Your task to perform on an android device: set the timer Image 0: 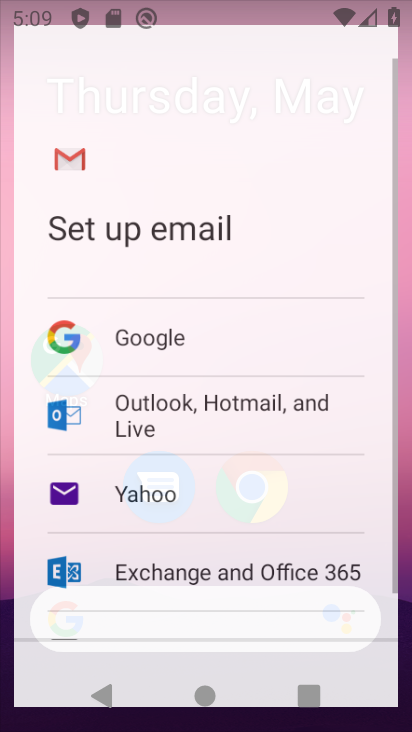
Step 0: drag from (318, 510) to (318, 252)
Your task to perform on an android device: set the timer Image 1: 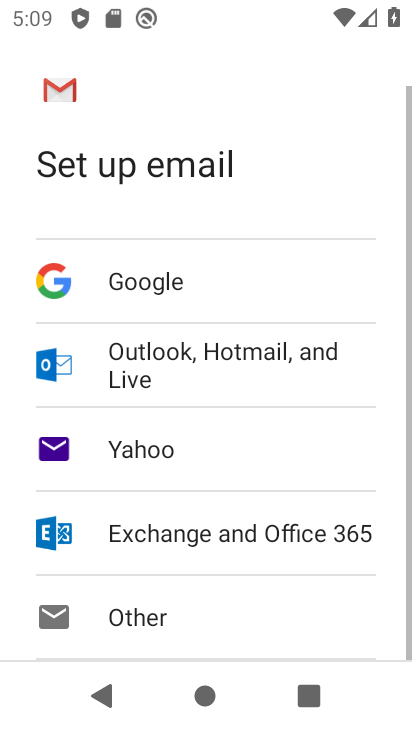
Step 1: press home button
Your task to perform on an android device: set the timer Image 2: 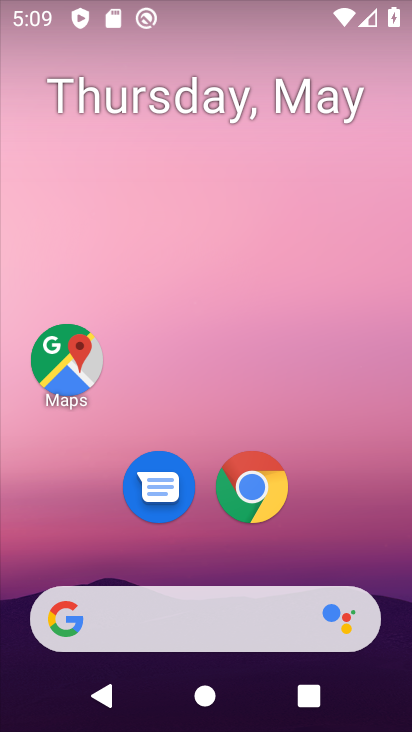
Step 2: drag from (324, 513) to (297, 47)
Your task to perform on an android device: set the timer Image 3: 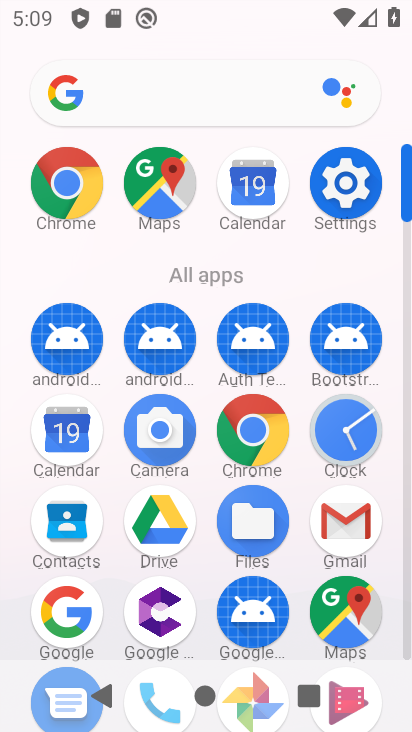
Step 3: click (350, 430)
Your task to perform on an android device: set the timer Image 4: 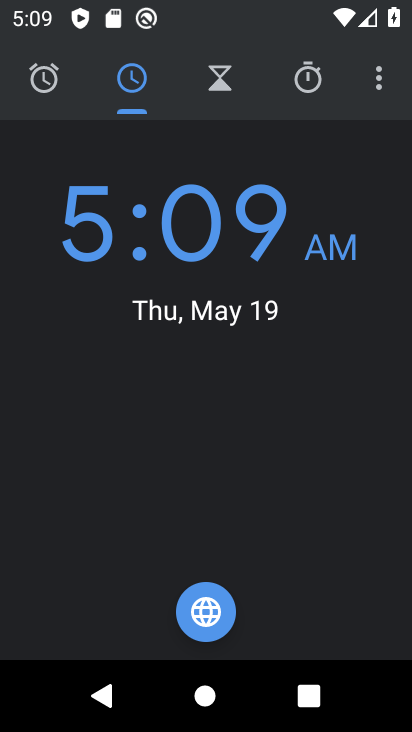
Step 4: click (220, 76)
Your task to perform on an android device: set the timer Image 5: 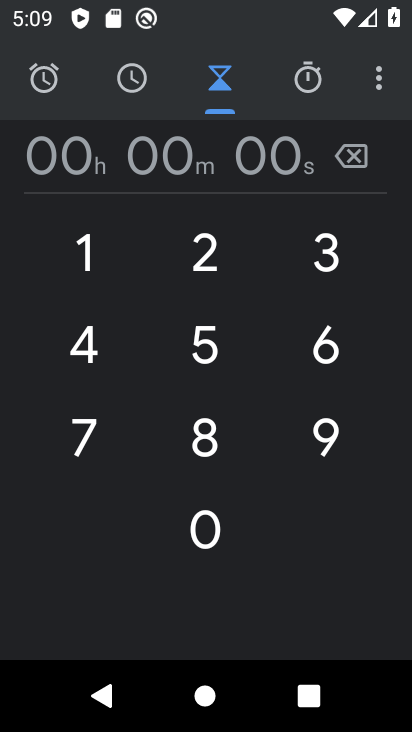
Step 5: click (90, 254)
Your task to perform on an android device: set the timer Image 6: 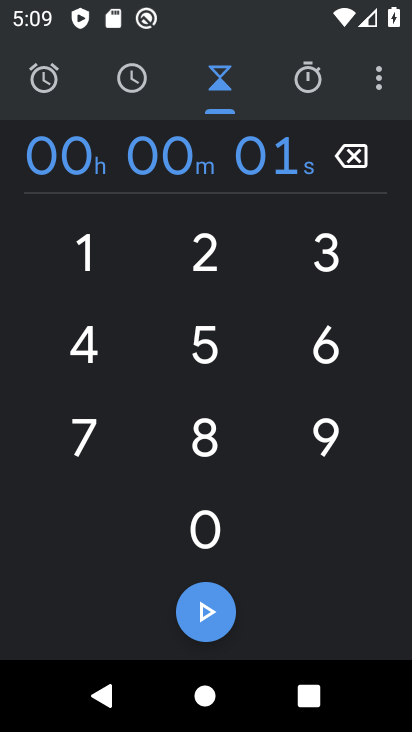
Step 6: click (203, 264)
Your task to perform on an android device: set the timer Image 7: 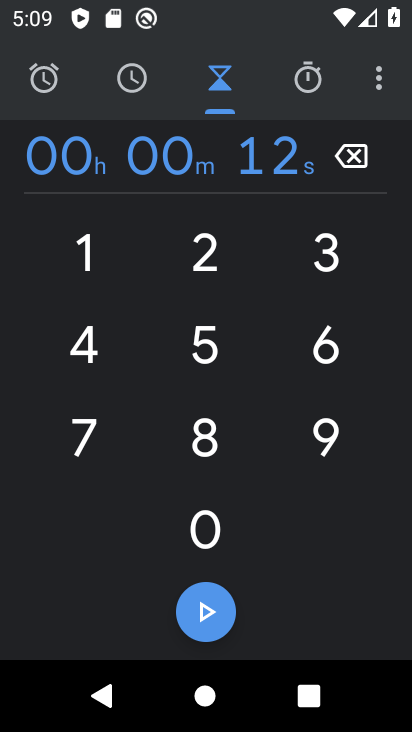
Step 7: task complete